Your task to perform on an android device: check storage Image 0: 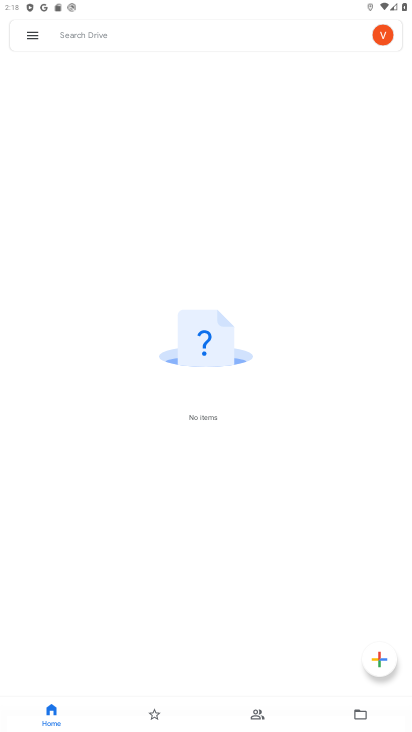
Step 0: press home button
Your task to perform on an android device: check storage Image 1: 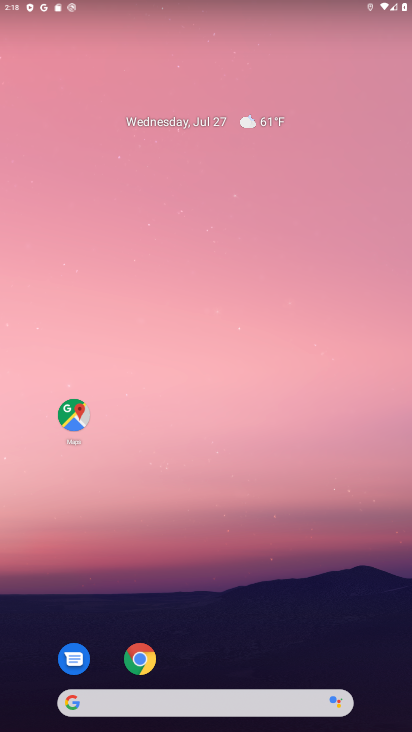
Step 1: drag from (188, 697) to (163, 264)
Your task to perform on an android device: check storage Image 2: 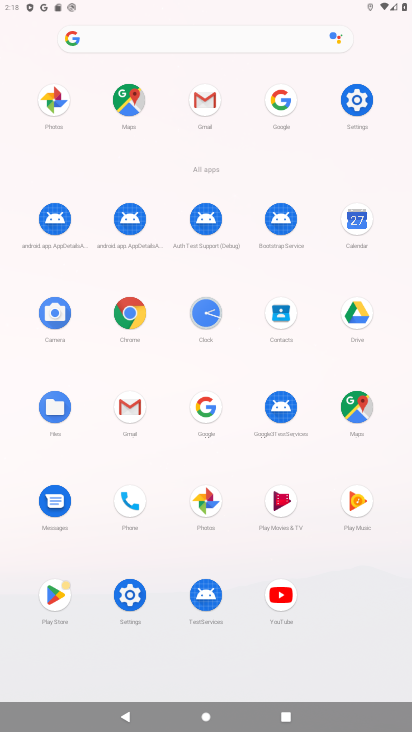
Step 2: click (356, 99)
Your task to perform on an android device: check storage Image 3: 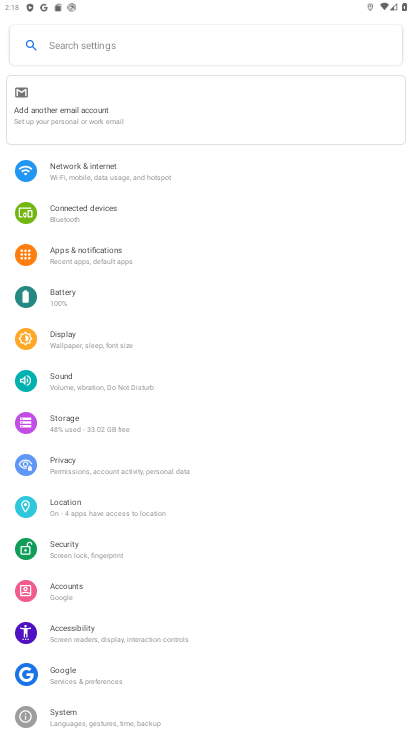
Step 3: click (89, 418)
Your task to perform on an android device: check storage Image 4: 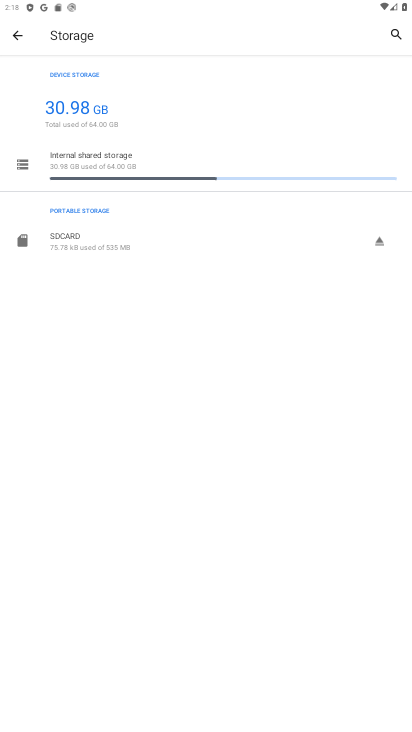
Step 4: task complete